Your task to perform on an android device: What's on my calendar tomorrow? Image 0: 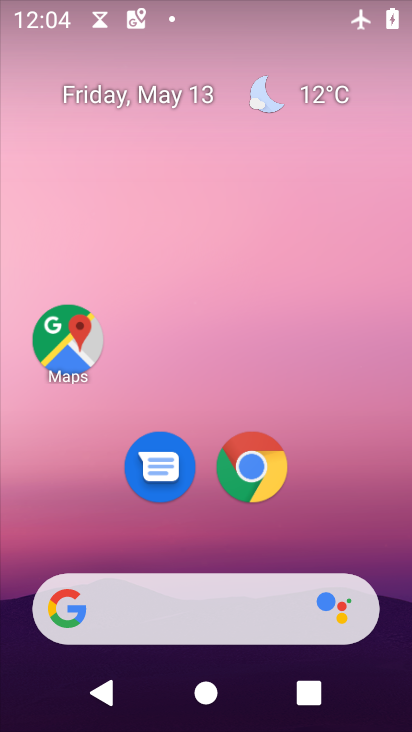
Step 0: click (139, 103)
Your task to perform on an android device: What's on my calendar tomorrow? Image 1: 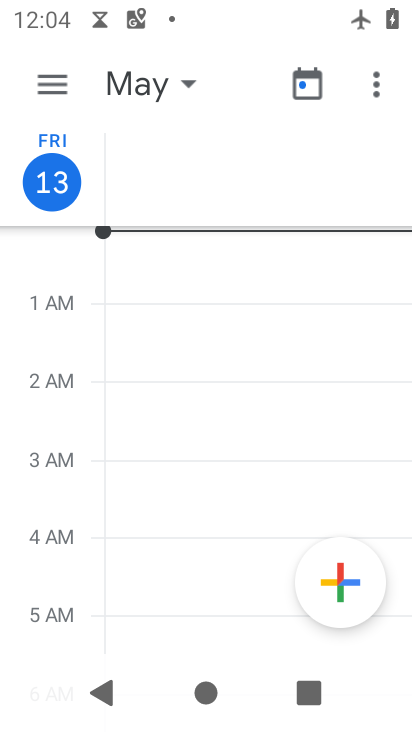
Step 1: drag from (39, 550) to (21, 148)
Your task to perform on an android device: What's on my calendar tomorrow? Image 2: 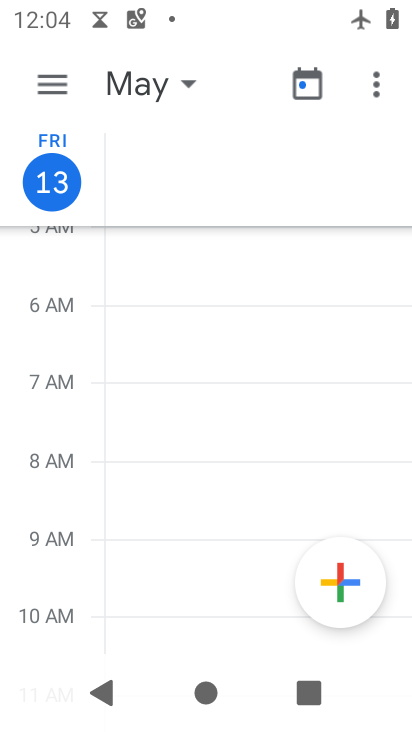
Step 2: drag from (43, 561) to (20, 33)
Your task to perform on an android device: What's on my calendar tomorrow? Image 3: 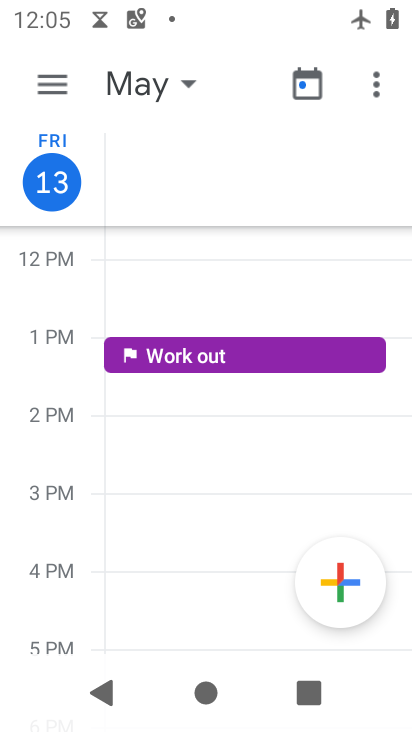
Step 3: drag from (45, 408) to (34, 51)
Your task to perform on an android device: What's on my calendar tomorrow? Image 4: 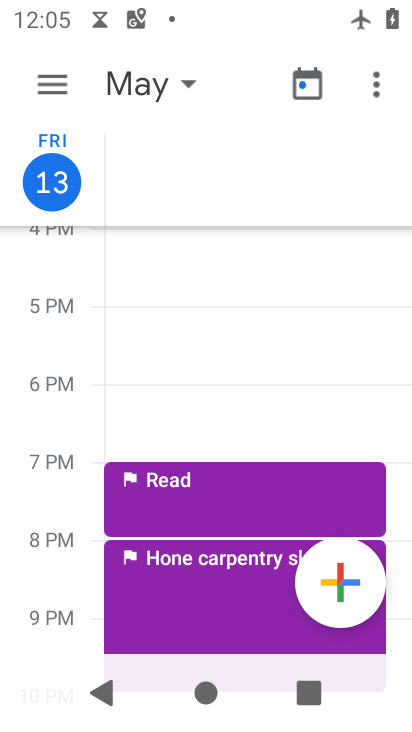
Step 4: drag from (71, 503) to (33, 191)
Your task to perform on an android device: What's on my calendar tomorrow? Image 5: 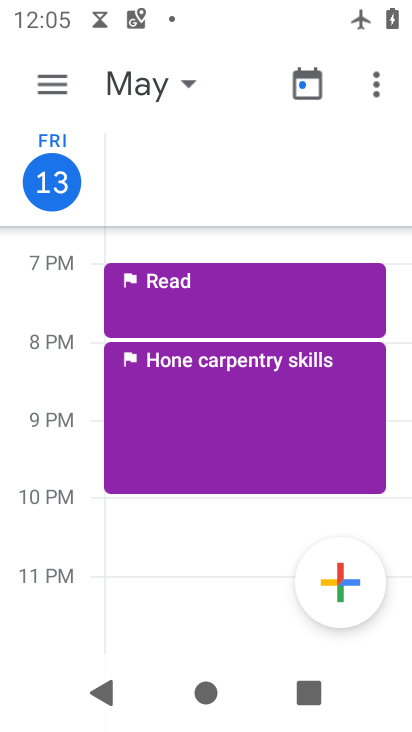
Step 5: drag from (60, 539) to (38, 177)
Your task to perform on an android device: What's on my calendar tomorrow? Image 6: 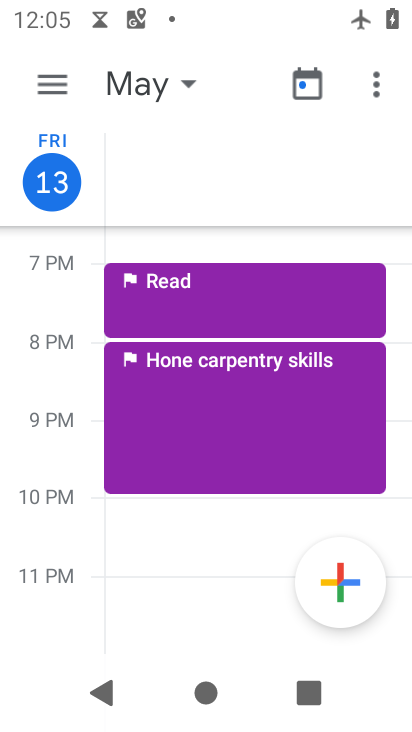
Step 6: click (43, 74)
Your task to perform on an android device: What's on my calendar tomorrow? Image 7: 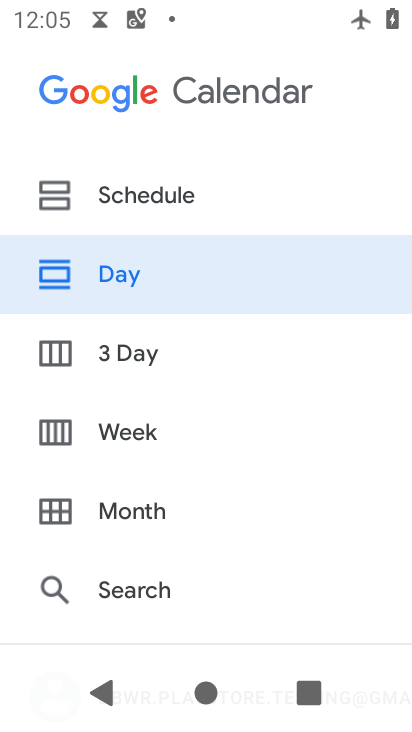
Step 7: press back button
Your task to perform on an android device: What's on my calendar tomorrow? Image 8: 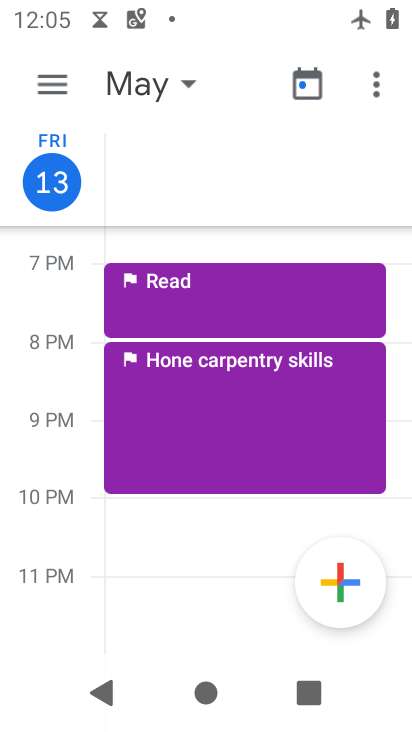
Step 8: click (147, 90)
Your task to perform on an android device: What's on my calendar tomorrow? Image 9: 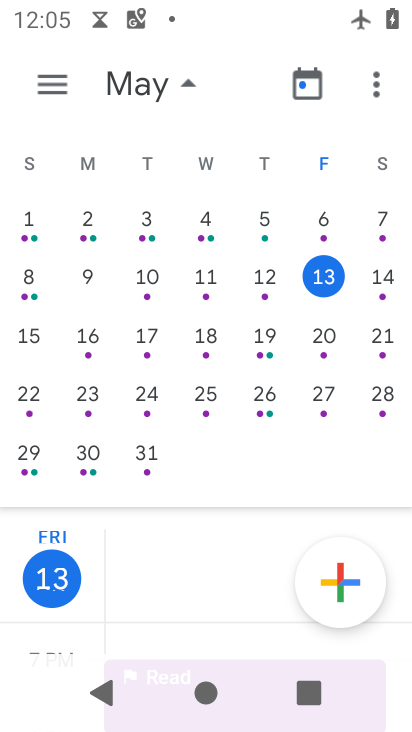
Step 9: click (388, 282)
Your task to perform on an android device: What's on my calendar tomorrow? Image 10: 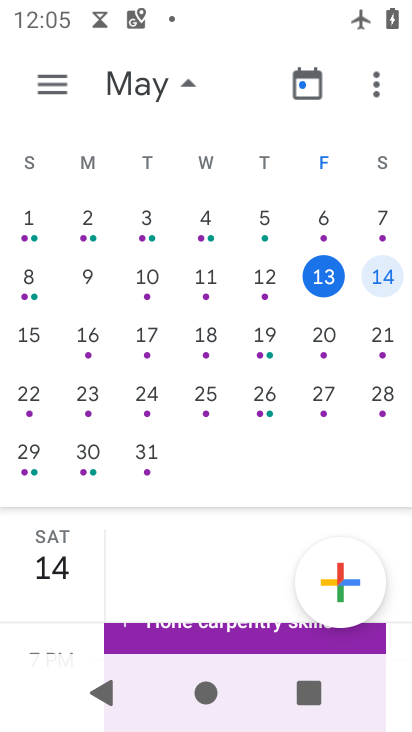
Step 10: task complete